Your task to perform on an android device: Play the last video I watched on Youtube Image 0: 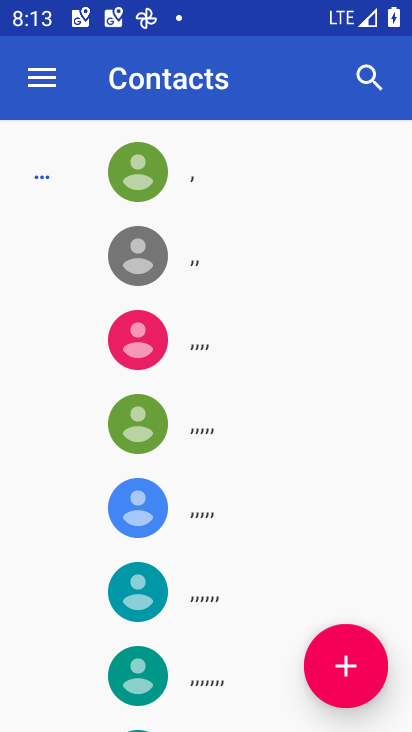
Step 0: press home button
Your task to perform on an android device: Play the last video I watched on Youtube Image 1: 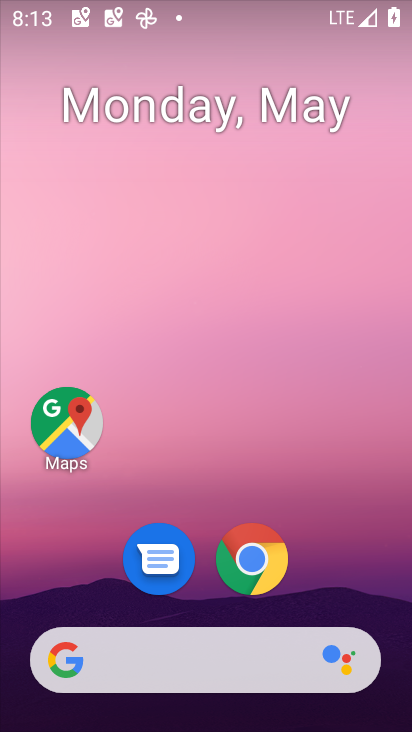
Step 1: drag from (392, 629) to (309, 4)
Your task to perform on an android device: Play the last video I watched on Youtube Image 2: 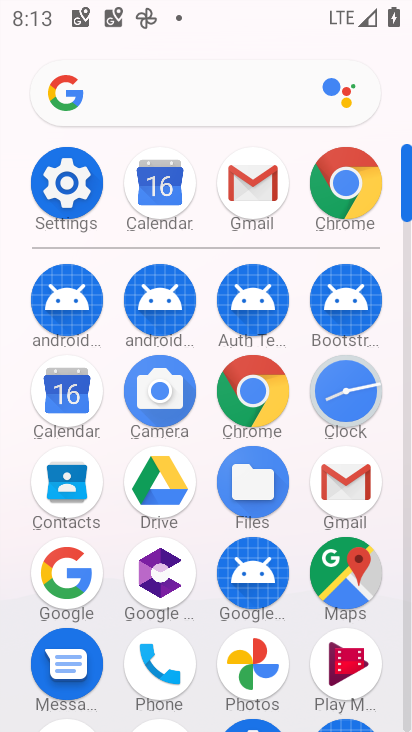
Step 2: drag from (209, 642) to (203, 74)
Your task to perform on an android device: Play the last video I watched on Youtube Image 3: 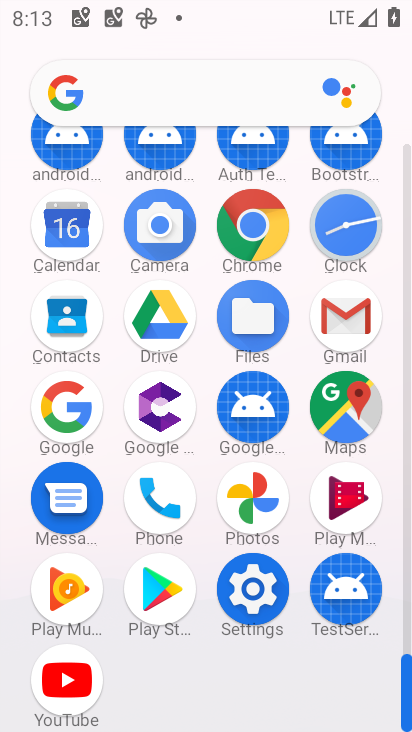
Step 3: click (72, 673)
Your task to perform on an android device: Play the last video I watched on Youtube Image 4: 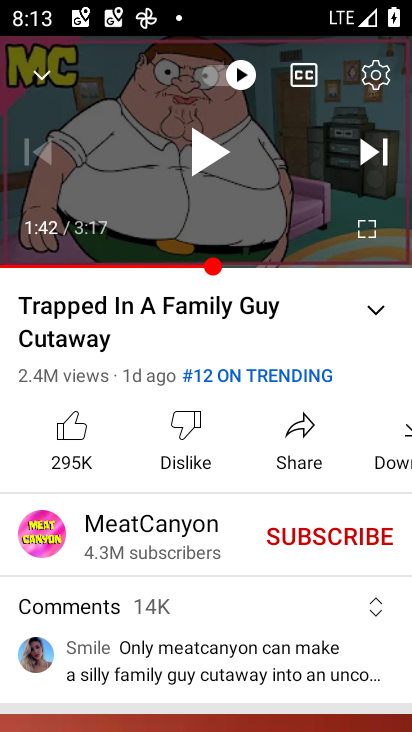
Step 4: click (211, 170)
Your task to perform on an android device: Play the last video I watched on Youtube Image 5: 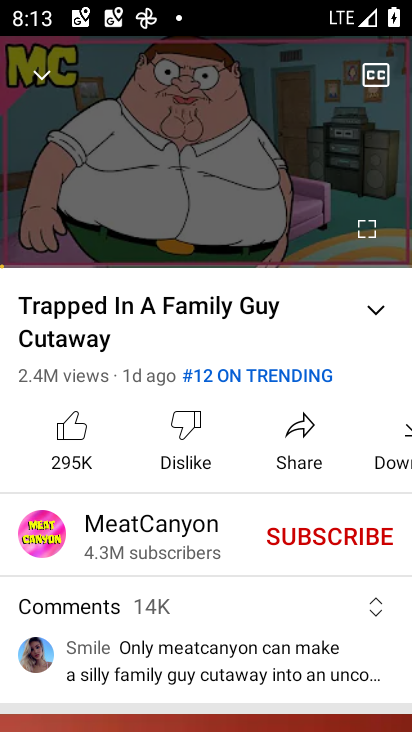
Step 5: click (207, 140)
Your task to perform on an android device: Play the last video I watched on Youtube Image 6: 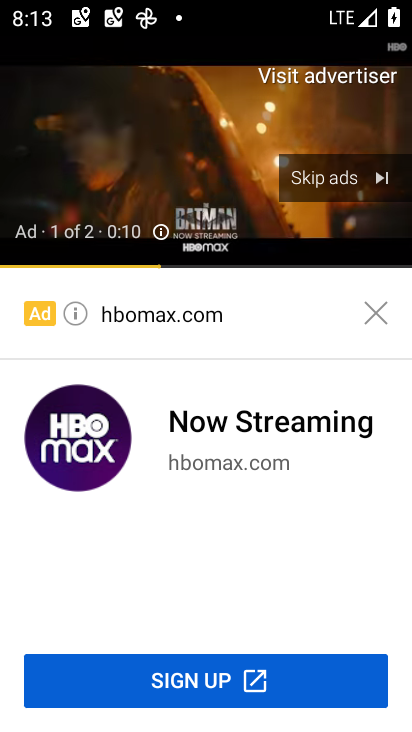
Step 6: click (333, 177)
Your task to perform on an android device: Play the last video I watched on Youtube Image 7: 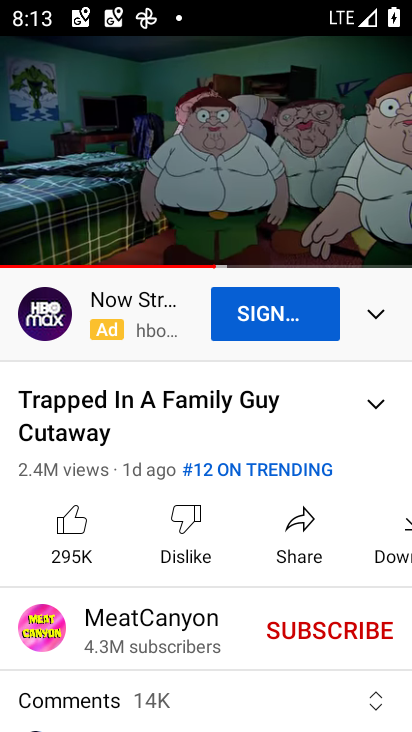
Step 7: click (212, 155)
Your task to perform on an android device: Play the last video I watched on Youtube Image 8: 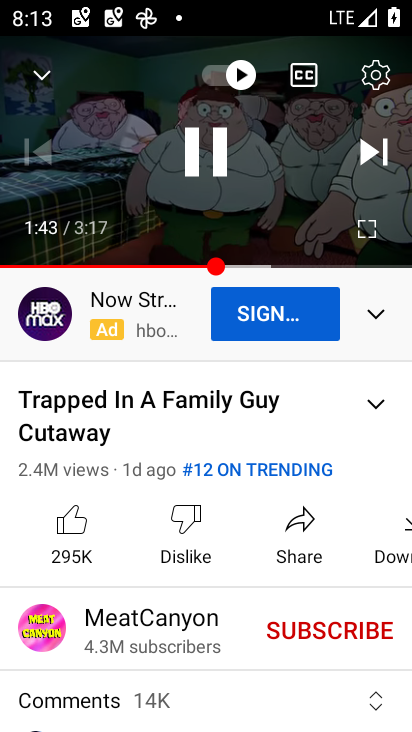
Step 8: click (212, 155)
Your task to perform on an android device: Play the last video I watched on Youtube Image 9: 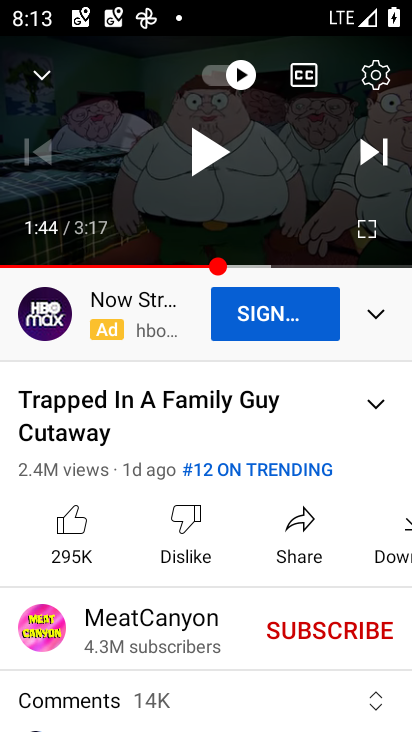
Step 9: task complete